Your task to perform on an android device: Go to Google Image 0: 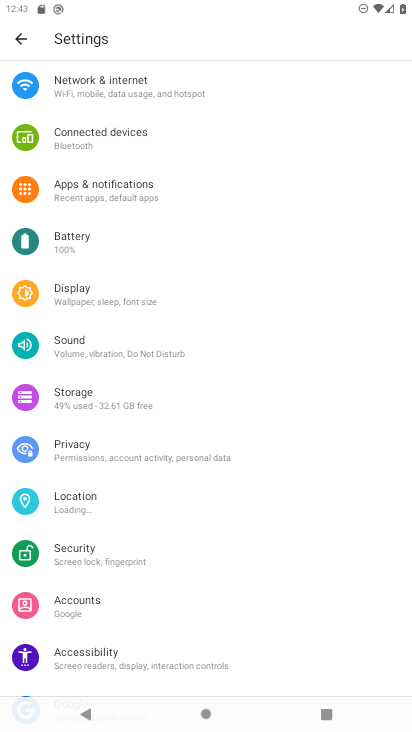
Step 0: press home button
Your task to perform on an android device: Go to Google Image 1: 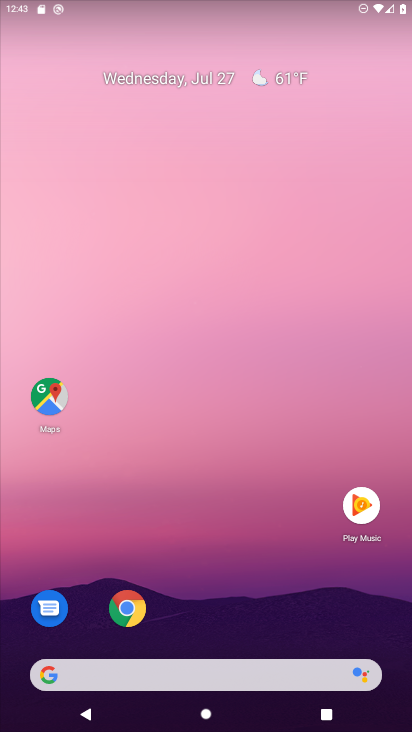
Step 1: drag from (298, 590) to (318, 144)
Your task to perform on an android device: Go to Google Image 2: 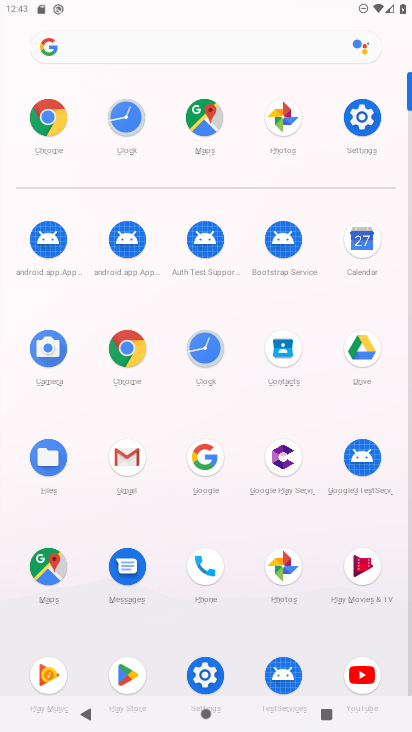
Step 2: click (210, 464)
Your task to perform on an android device: Go to Google Image 3: 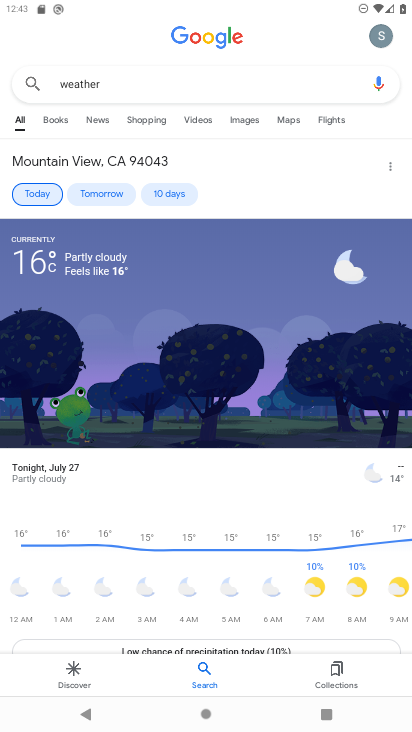
Step 3: task complete